Your task to perform on an android device: turn off sleep mode Image 0: 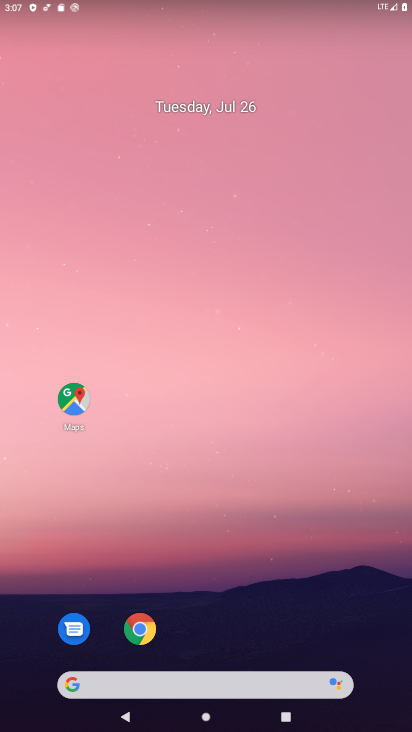
Step 0: drag from (228, 723) to (237, 189)
Your task to perform on an android device: turn off sleep mode Image 1: 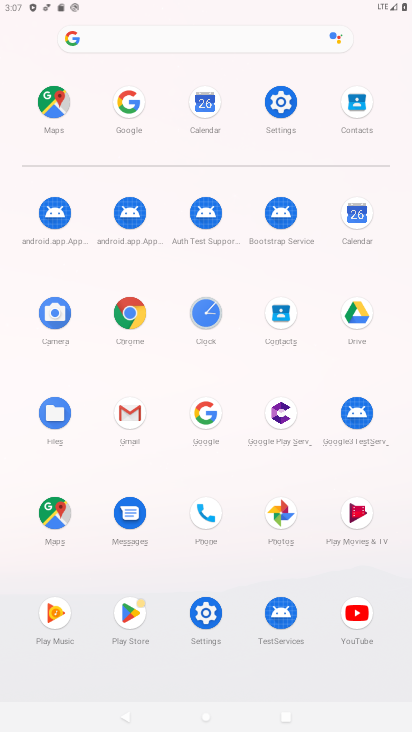
Step 1: click (282, 99)
Your task to perform on an android device: turn off sleep mode Image 2: 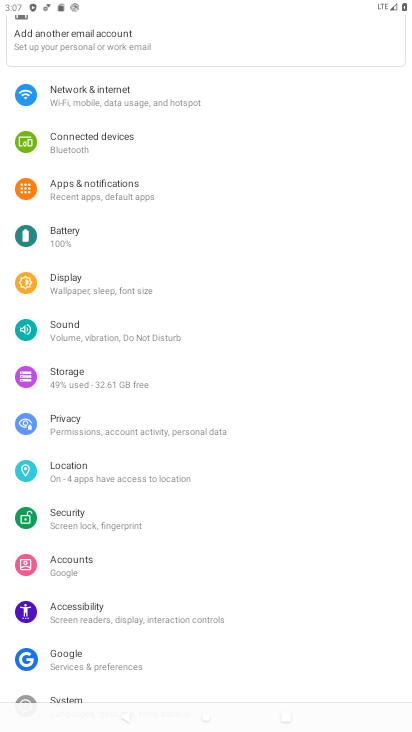
Step 2: click (101, 290)
Your task to perform on an android device: turn off sleep mode Image 3: 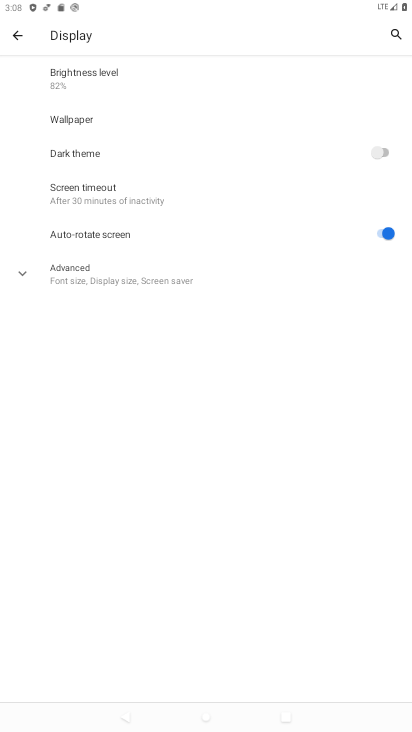
Step 3: task complete